Your task to perform on an android device: toggle wifi Image 0: 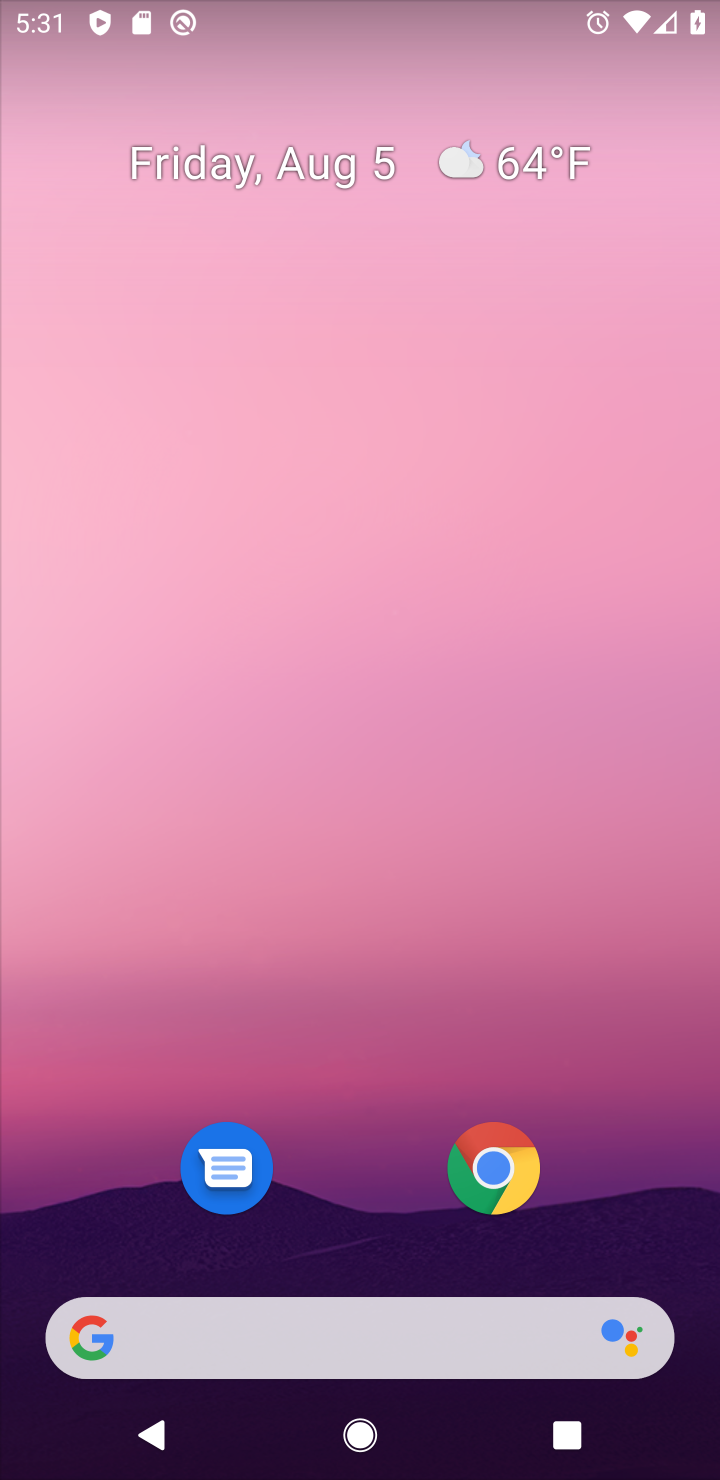
Step 0: drag from (178, 790) to (174, 1219)
Your task to perform on an android device: toggle wifi Image 1: 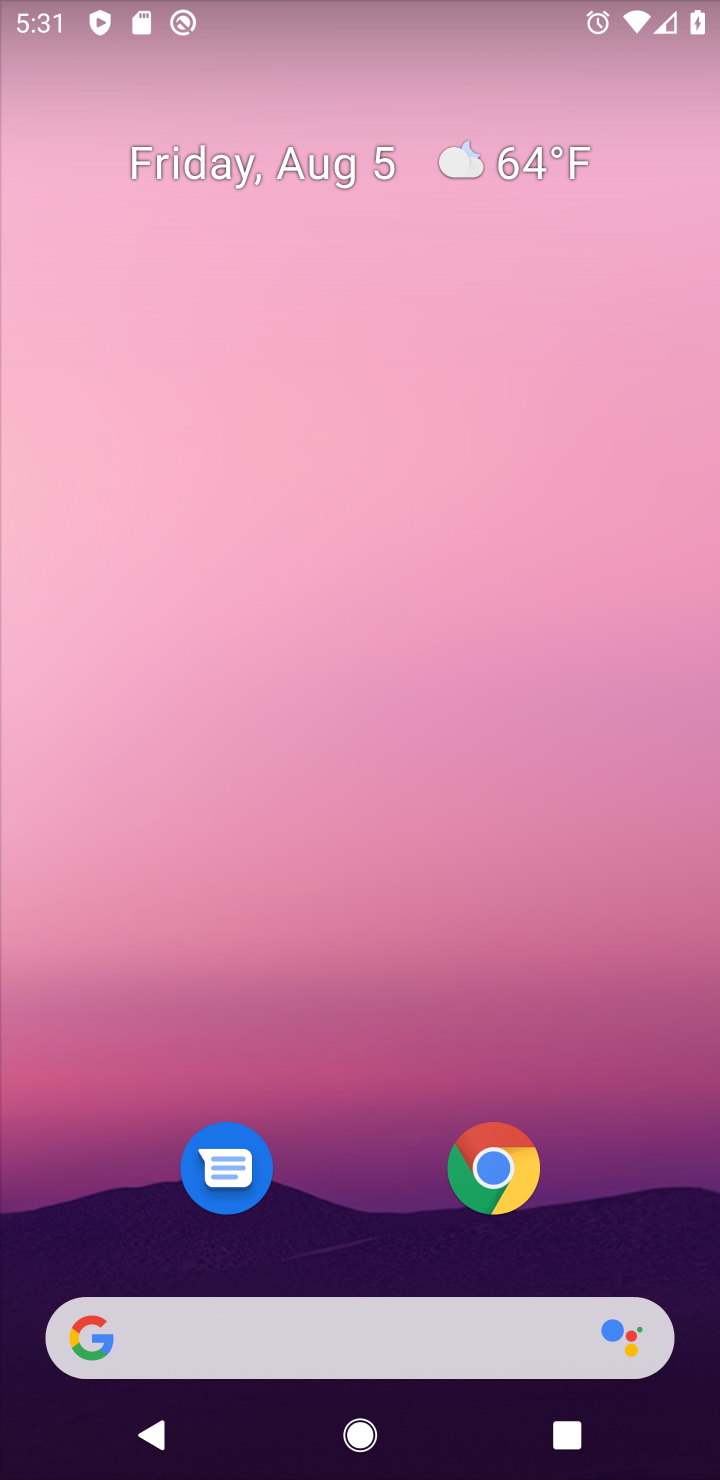
Step 1: drag from (380, 22) to (259, 1071)
Your task to perform on an android device: toggle wifi Image 2: 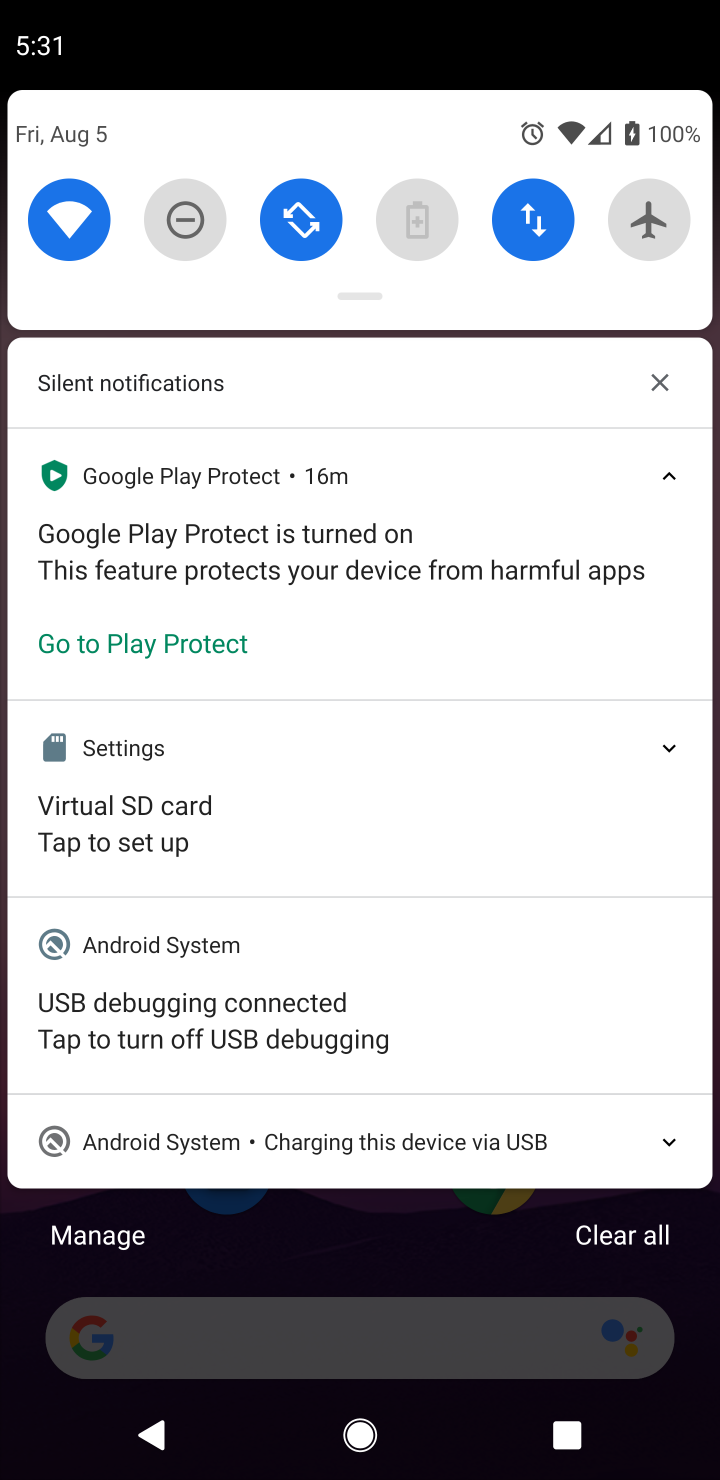
Step 2: click (61, 231)
Your task to perform on an android device: toggle wifi Image 3: 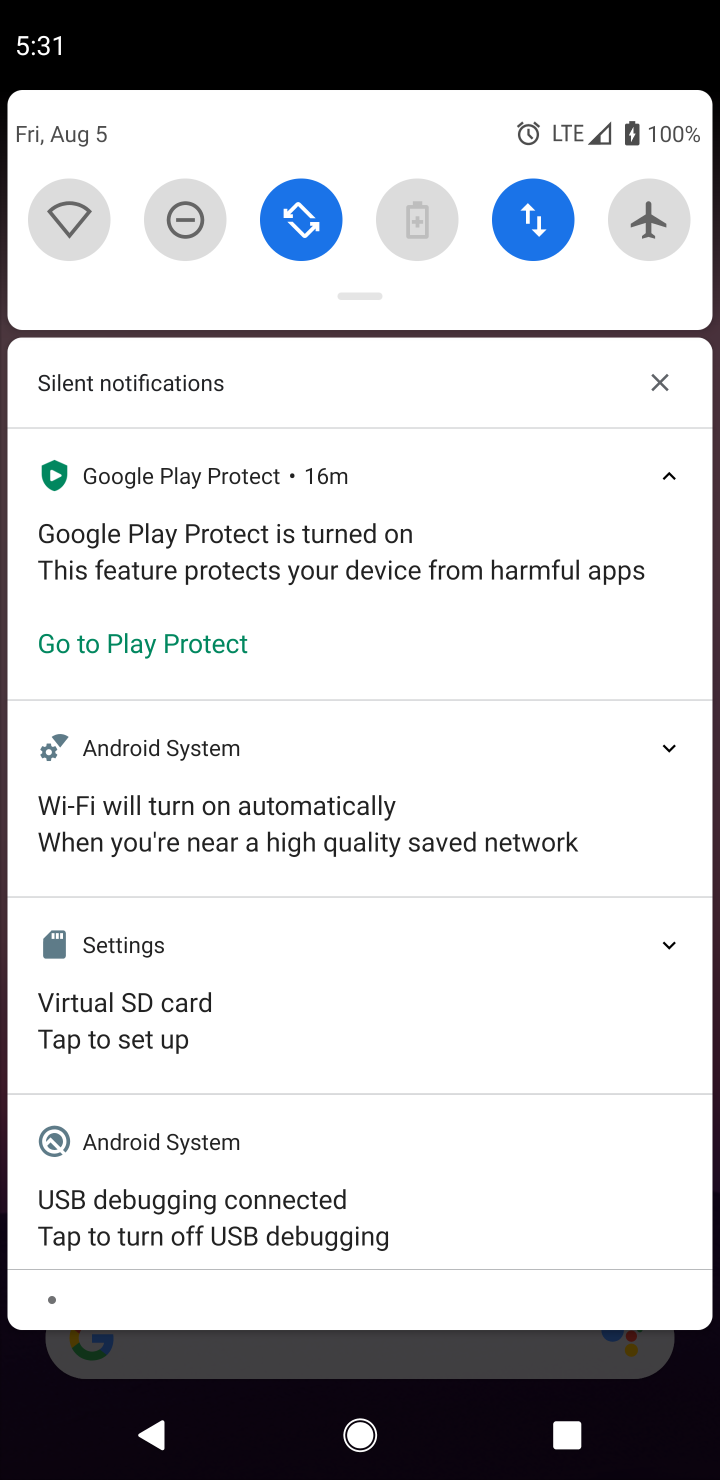
Step 3: task complete